Your task to perform on an android device: Go to privacy settings Image 0: 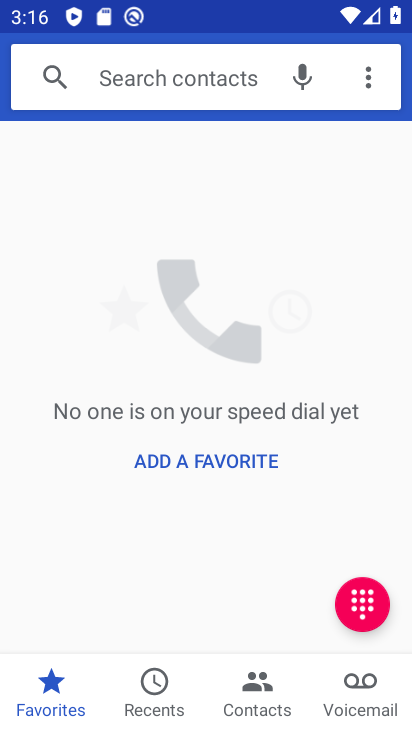
Step 0: press home button
Your task to perform on an android device: Go to privacy settings Image 1: 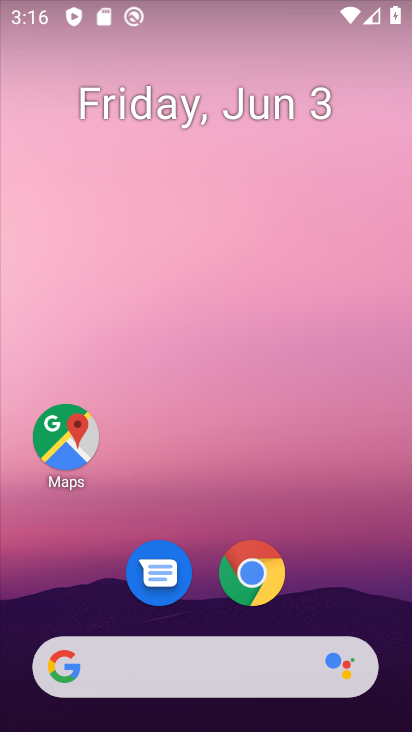
Step 1: drag from (380, 657) to (322, 130)
Your task to perform on an android device: Go to privacy settings Image 2: 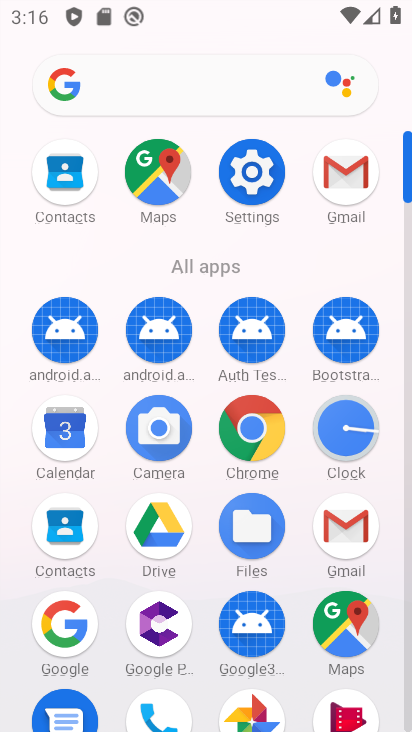
Step 2: click (249, 183)
Your task to perform on an android device: Go to privacy settings Image 3: 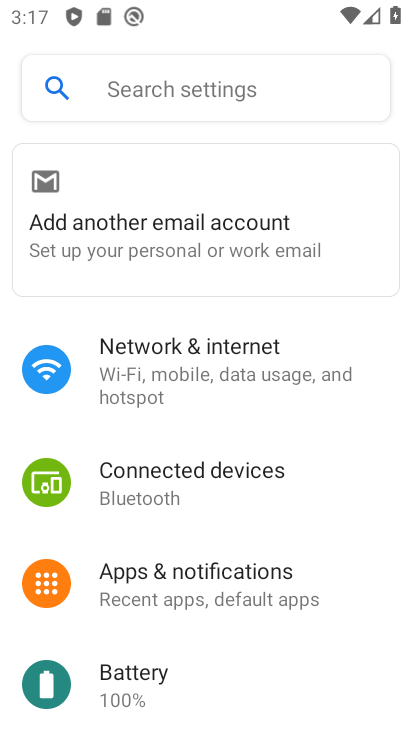
Step 3: drag from (239, 636) to (309, 223)
Your task to perform on an android device: Go to privacy settings Image 4: 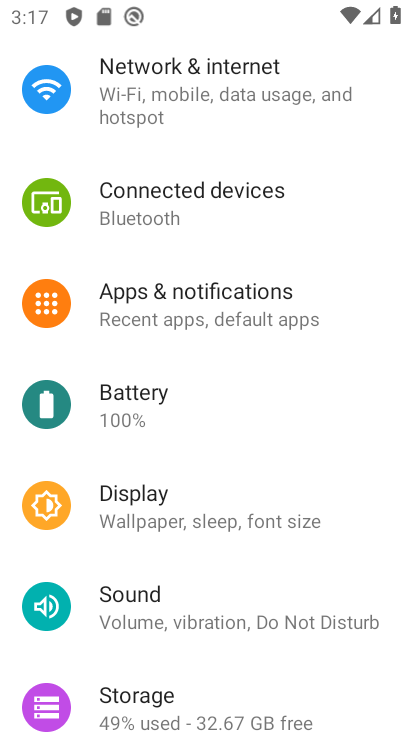
Step 4: drag from (320, 544) to (311, 255)
Your task to perform on an android device: Go to privacy settings Image 5: 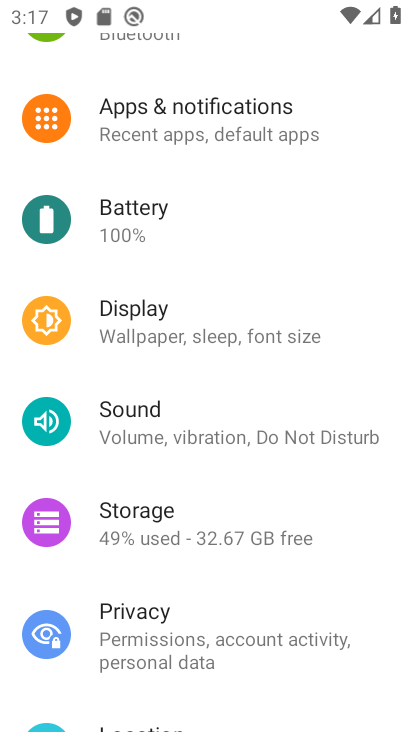
Step 5: drag from (370, 673) to (383, 318)
Your task to perform on an android device: Go to privacy settings Image 6: 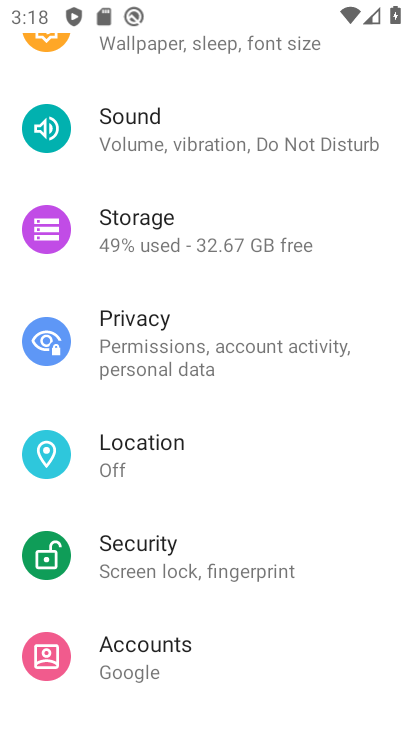
Step 6: click (126, 318)
Your task to perform on an android device: Go to privacy settings Image 7: 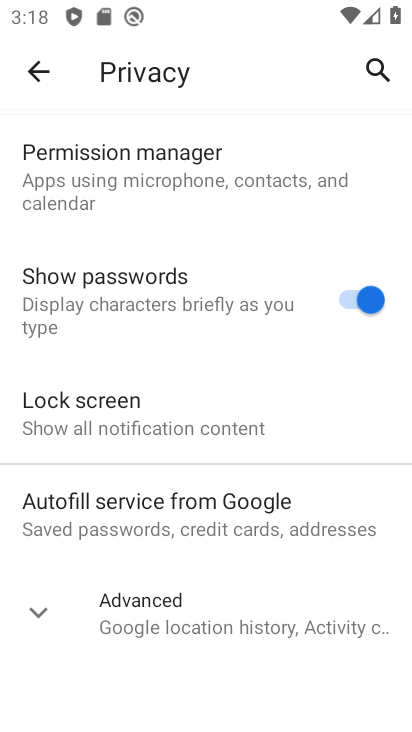
Step 7: drag from (222, 582) to (217, 271)
Your task to perform on an android device: Go to privacy settings Image 8: 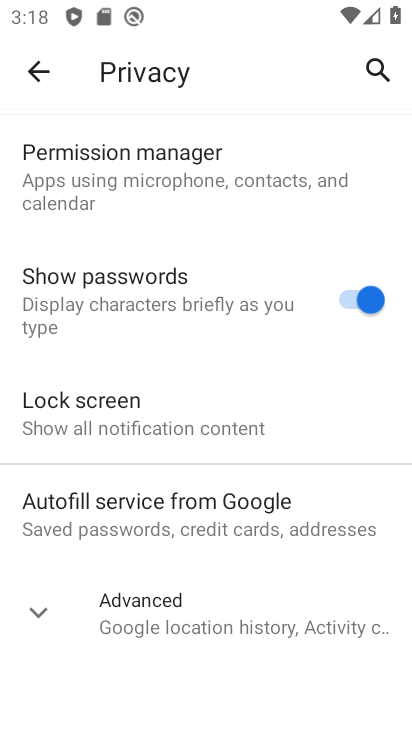
Step 8: click (39, 610)
Your task to perform on an android device: Go to privacy settings Image 9: 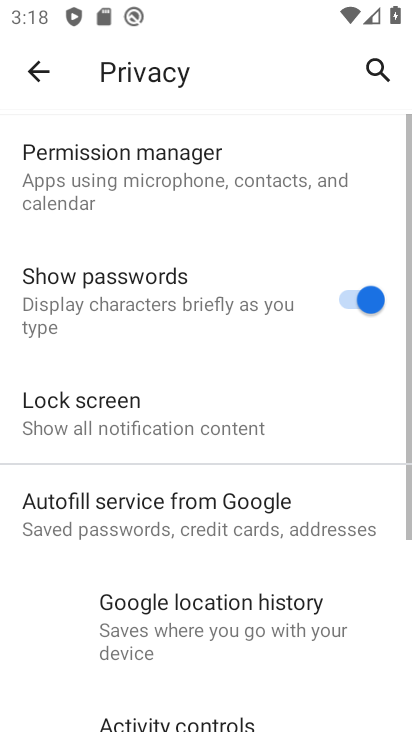
Step 9: task complete